Your task to perform on an android device: check the backup settings in the google photos Image 0: 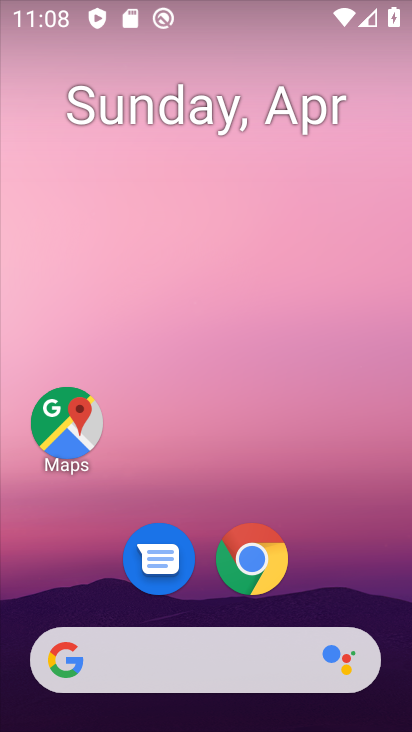
Step 0: drag from (339, 453) to (356, 124)
Your task to perform on an android device: check the backup settings in the google photos Image 1: 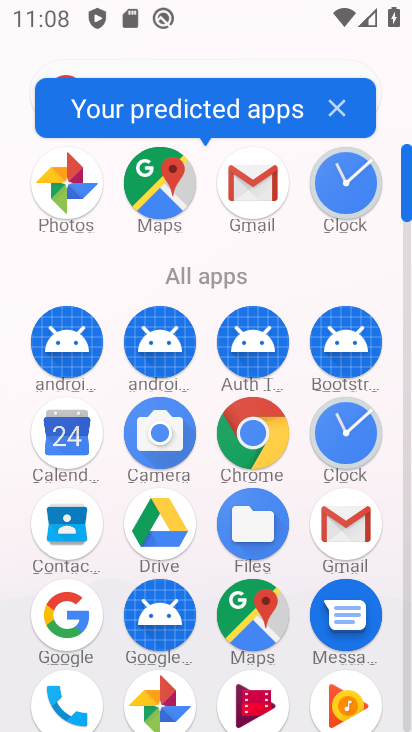
Step 1: click (62, 183)
Your task to perform on an android device: check the backup settings in the google photos Image 2: 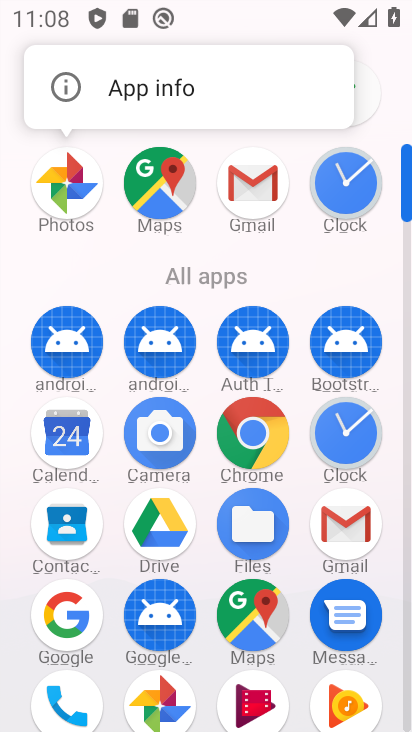
Step 2: click (62, 190)
Your task to perform on an android device: check the backup settings in the google photos Image 3: 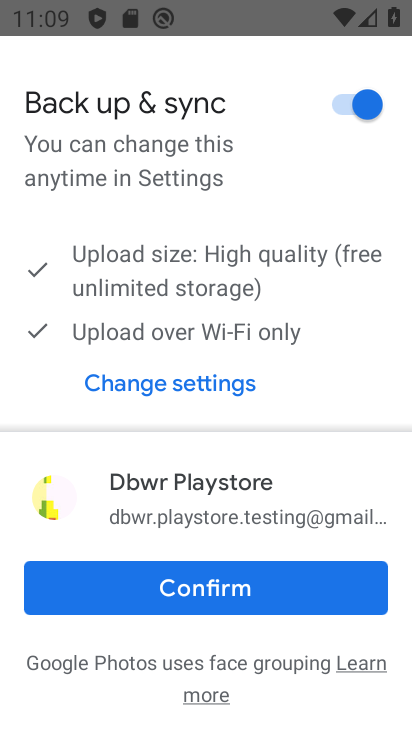
Step 3: click (282, 580)
Your task to perform on an android device: check the backup settings in the google photos Image 4: 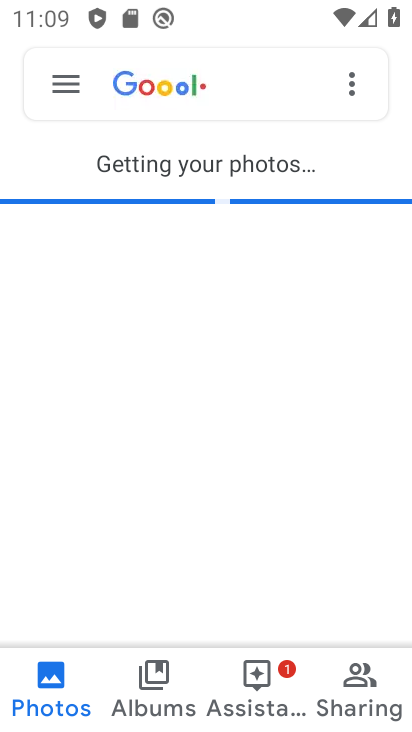
Step 4: click (70, 91)
Your task to perform on an android device: check the backup settings in the google photos Image 5: 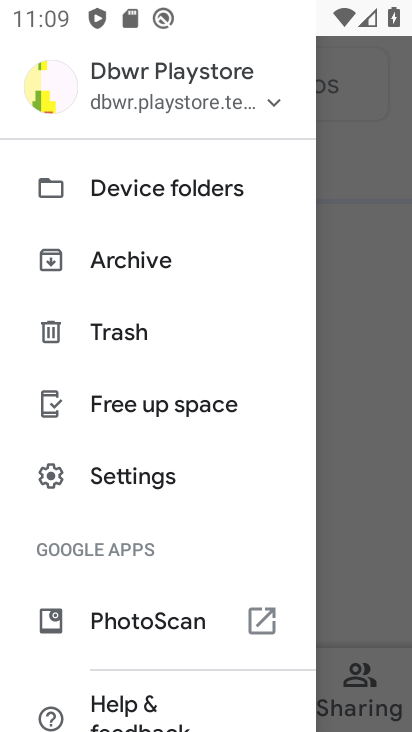
Step 5: click (133, 470)
Your task to perform on an android device: check the backup settings in the google photos Image 6: 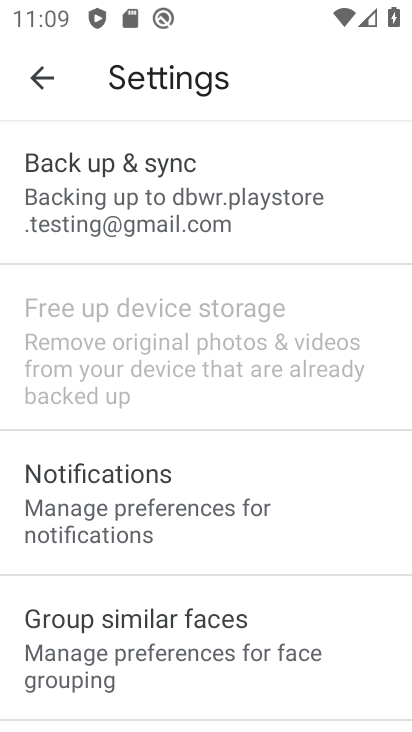
Step 6: click (90, 176)
Your task to perform on an android device: check the backup settings in the google photos Image 7: 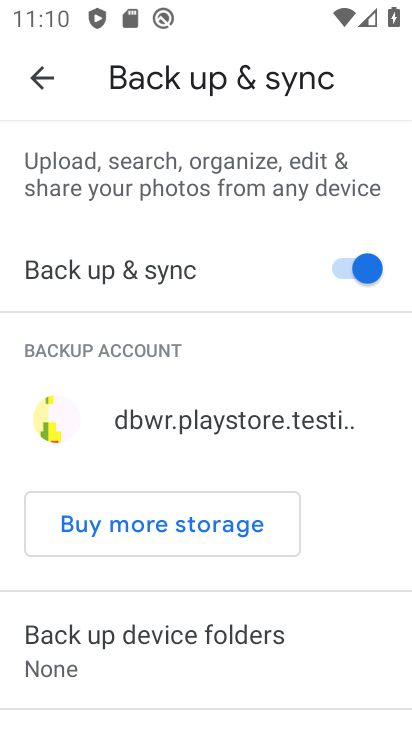
Step 7: task complete